Your task to perform on an android device: turn off notifications settings in the gmail app Image 0: 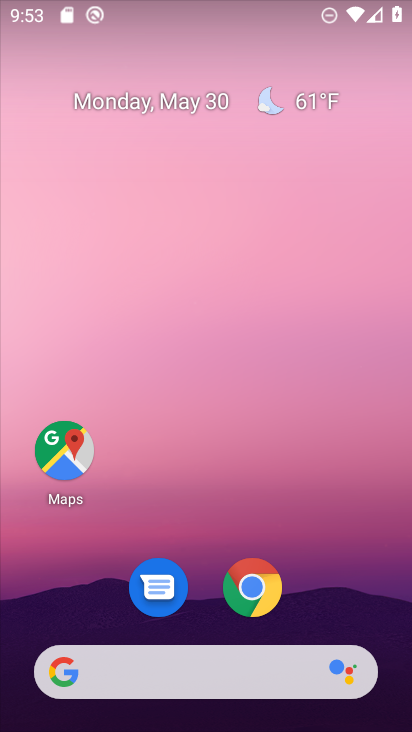
Step 0: drag from (245, 647) to (296, 15)
Your task to perform on an android device: turn off notifications settings in the gmail app Image 1: 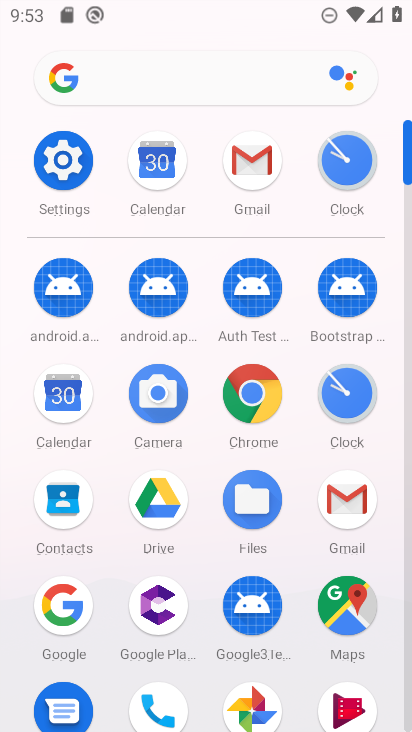
Step 1: click (339, 504)
Your task to perform on an android device: turn off notifications settings in the gmail app Image 2: 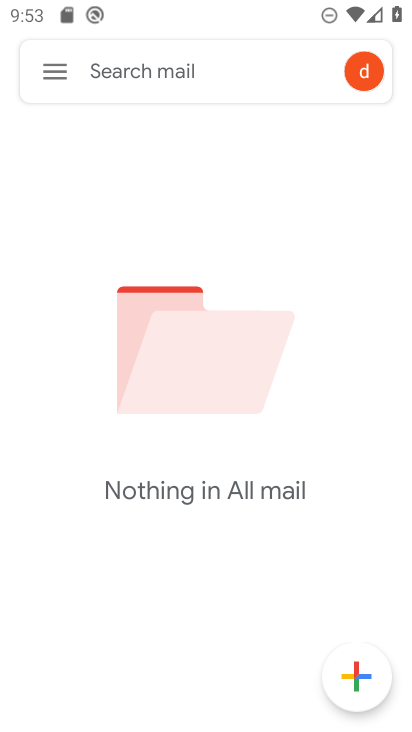
Step 2: click (65, 66)
Your task to perform on an android device: turn off notifications settings in the gmail app Image 3: 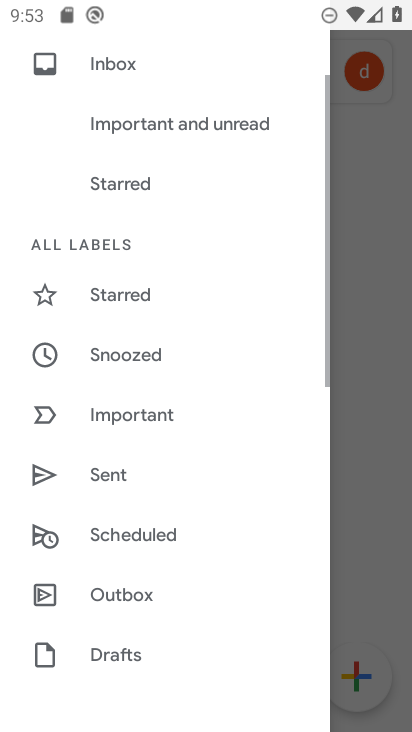
Step 3: drag from (205, 541) to (179, 63)
Your task to perform on an android device: turn off notifications settings in the gmail app Image 4: 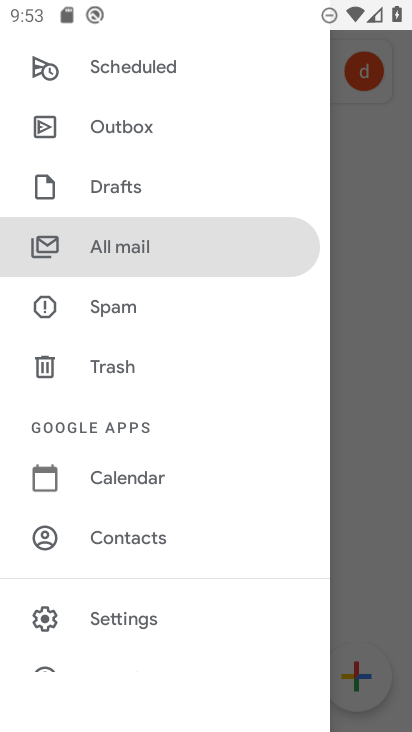
Step 4: click (143, 600)
Your task to perform on an android device: turn off notifications settings in the gmail app Image 5: 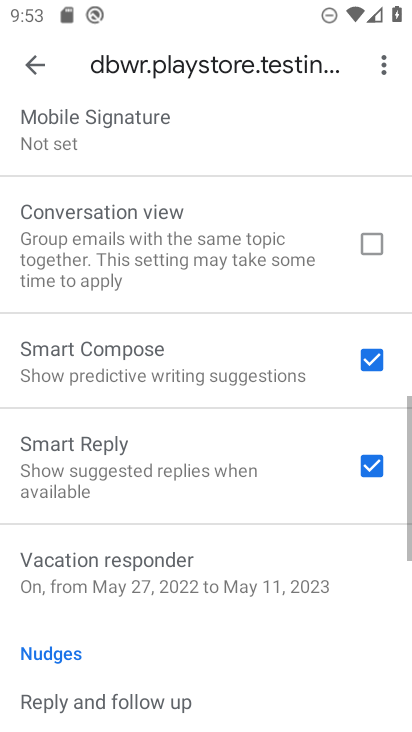
Step 5: drag from (171, 560) to (154, 488)
Your task to perform on an android device: turn off notifications settings in the gmail app Image 6: 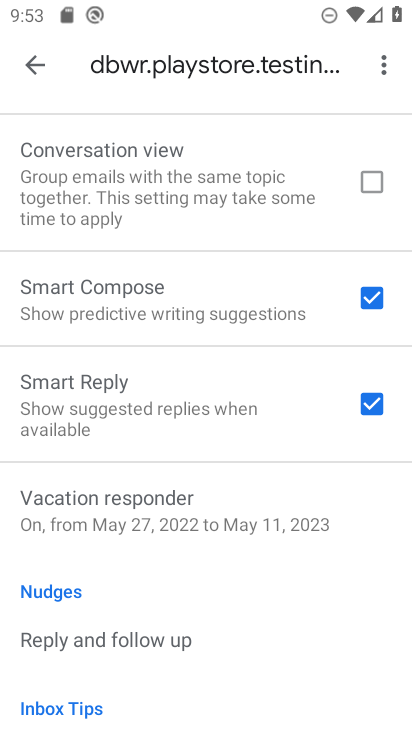
Step 6: click (35, 58)
Your task to perform on an android device: turn off notifications settings in the gmail app Image 7: 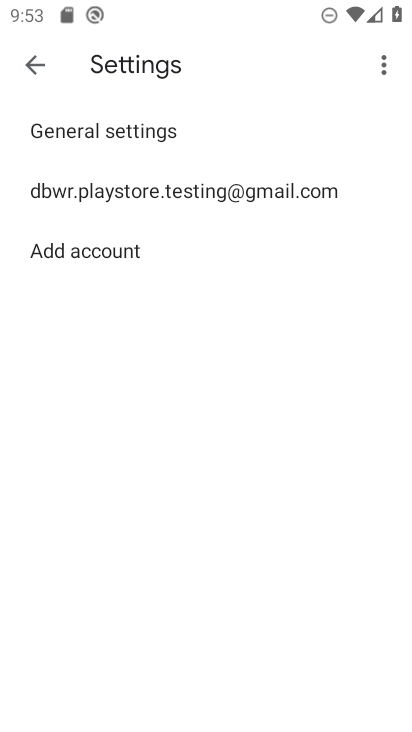
Step 7: click (60, 118)
Your task to perform on an android device: turn off notifications settings in the gmail app Image 8: 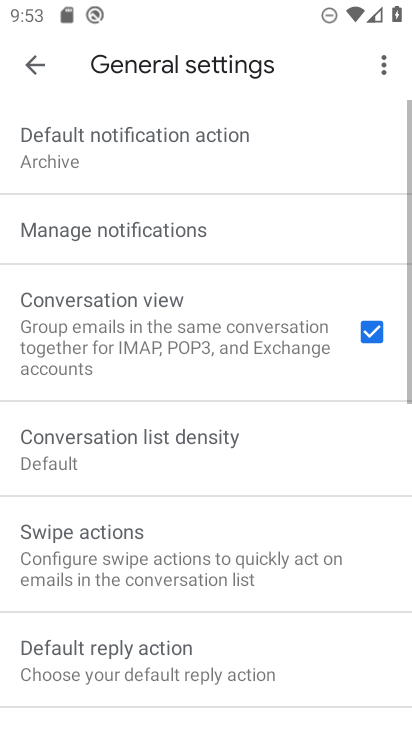
Step 8: click (118, 240)
Your task to perform on an android device: turn off notifications settings in the gmail app Image 9: 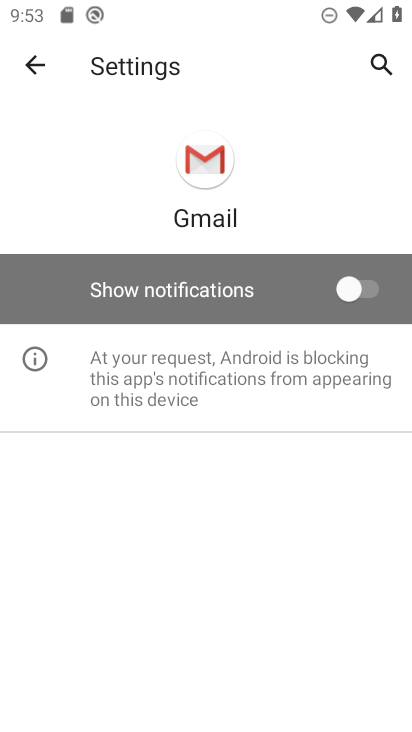
Step 9: task complete